Your task to perform on an android device: Toggle the flashlight Image 0: 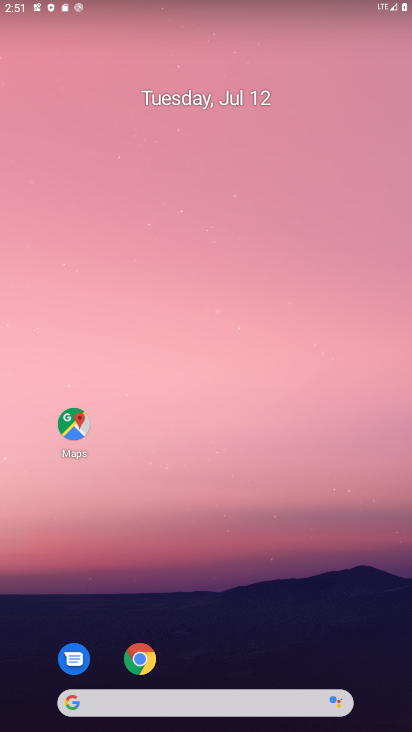
Step 0: drag from (221, 729) to (196, 210)
Your task to perform on an android device: Toggle the flashlight Image 1: 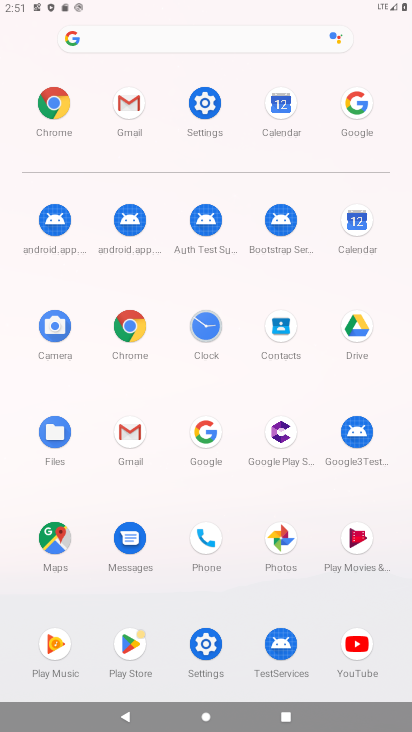
Step 1: click (202, 103)
Your task to perform on an android device: Toggle the flashlight Image 2: 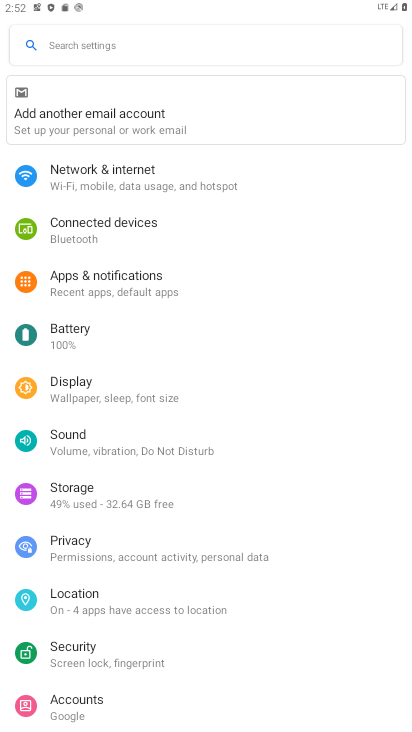
Step 2: task complete